Your task to perform on an android device: Show me popular videos on Youtube Image 0: 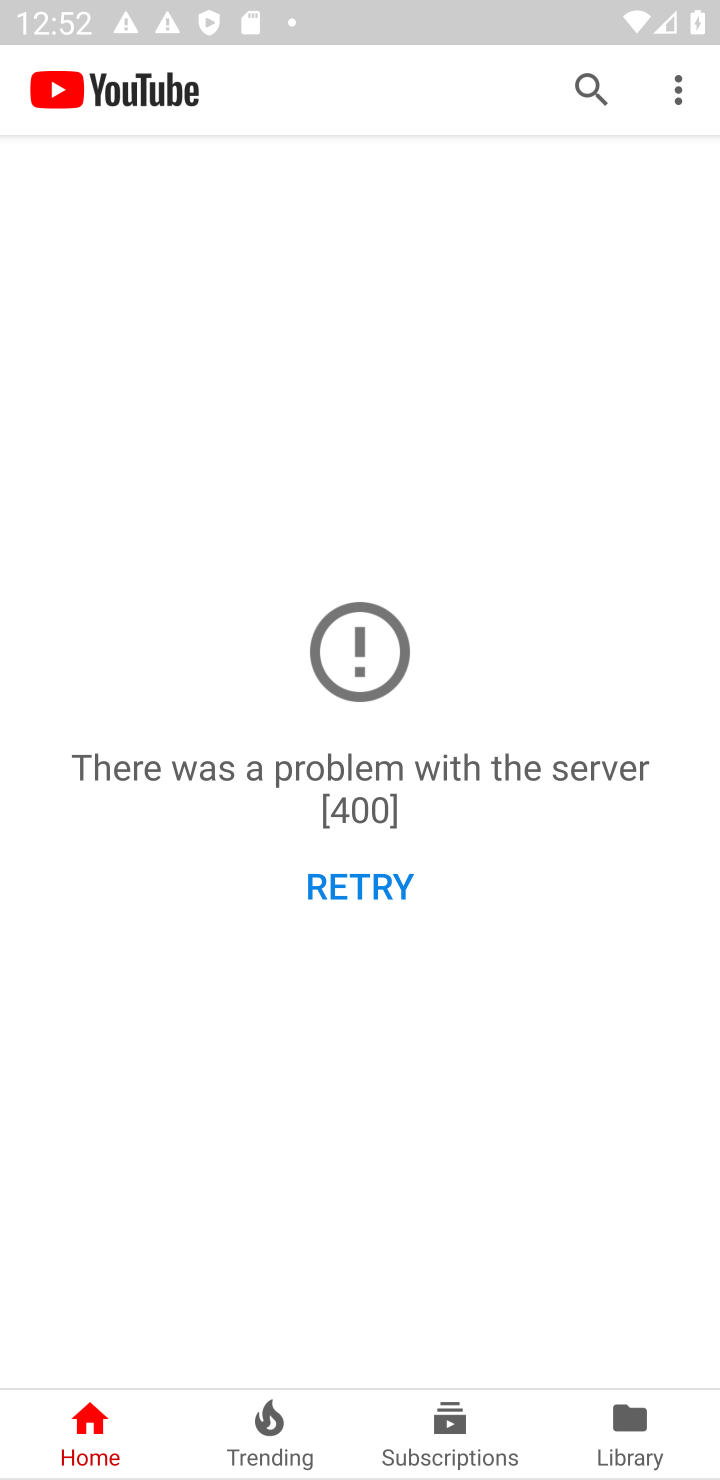
Step 0: click (613, 1435)
Your task to perform on an android device: Show me popular videos on Youtube Image 1: 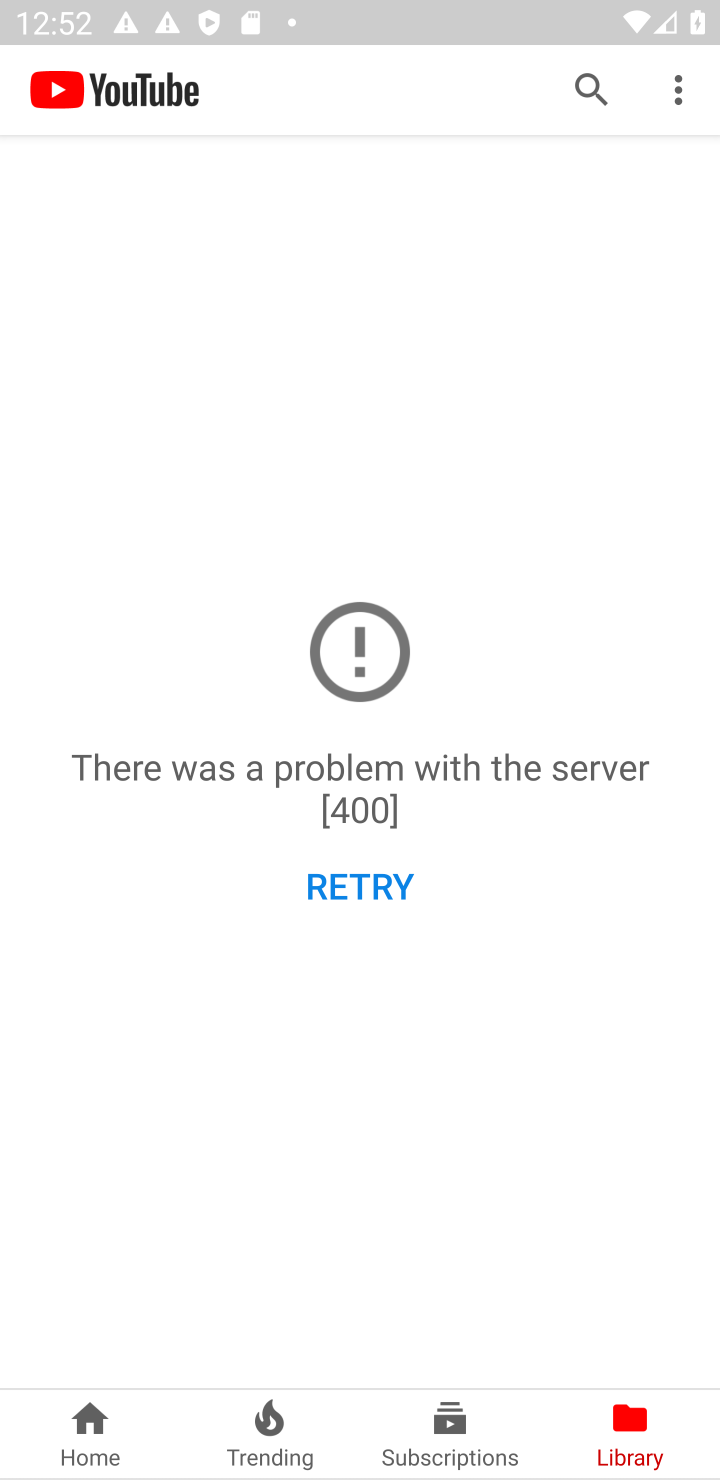
Step 1: task complete